Your task to perform on an android device: Check the weather Image 0: 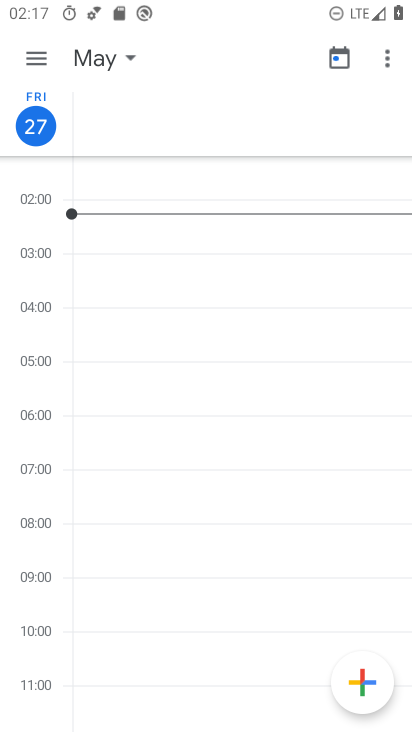
Step 0: press home button
Your task to perform on an android device: Check the weather Image 1: 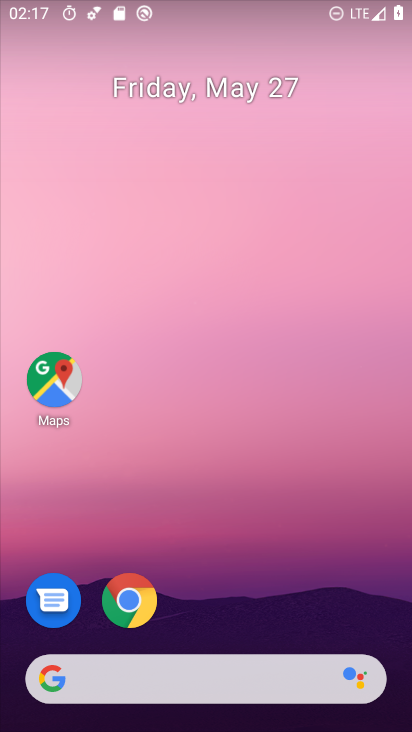
Step 1: click (245, 665)
Your task to perform on an android device: Check the weather Image 2: 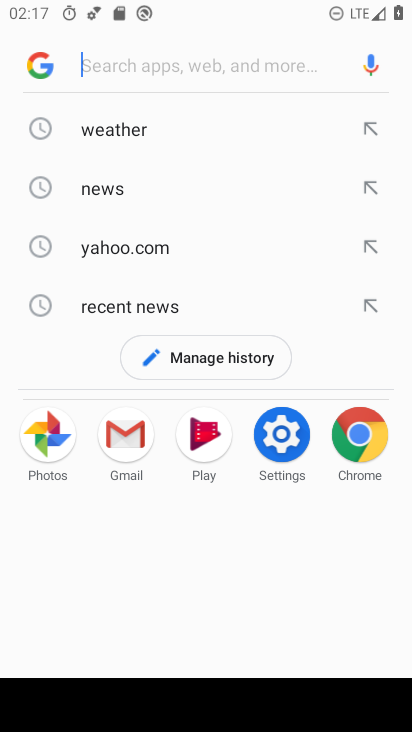
Step 2: click (218, 135)
Your task to perform on an android device: Check the weather Image 3: 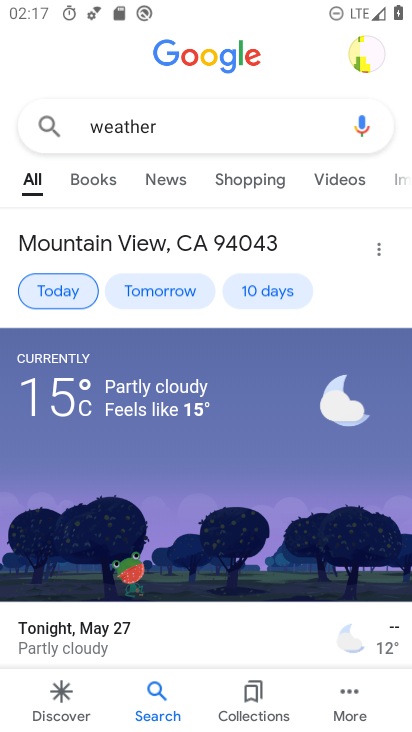
Step 3: task complete